Your task to perform on an android device: toggle improve location accuracy Image 0: 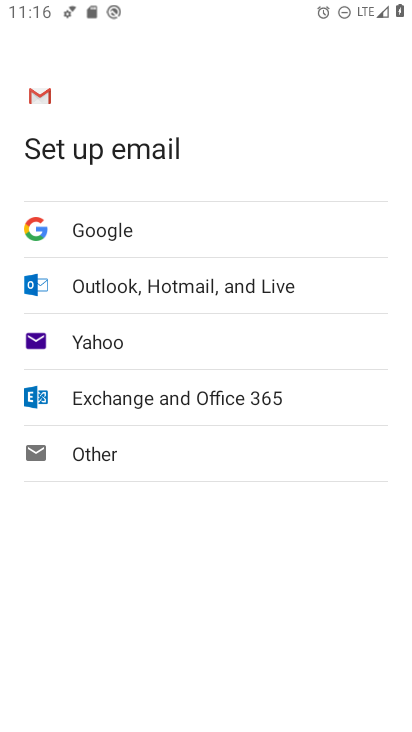
Step 0: press home button
Your task to perform on an android device: toggle improve location accuracy Image 1: 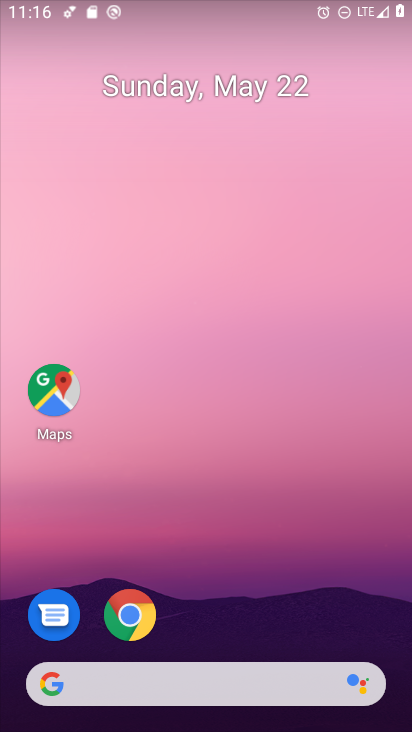
Step 1: drag from (296, 586) to (281, 55)
Your task to perform on an android device: toggle improve location accuracy Image 2: 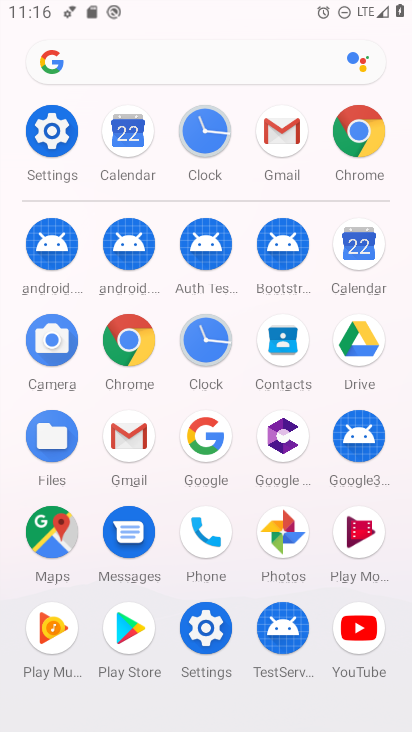
Step 2: click (33, 126)
Your task to perform on an android device: toggle improve location accuracy Image 3: 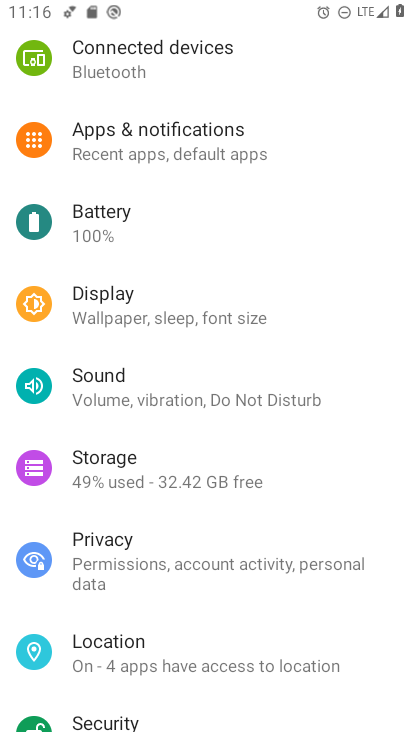
Step 3: drag from (234, 546) to (281, 57)
Your task to perform on an android device: toggle improve location accuracy Image 4: 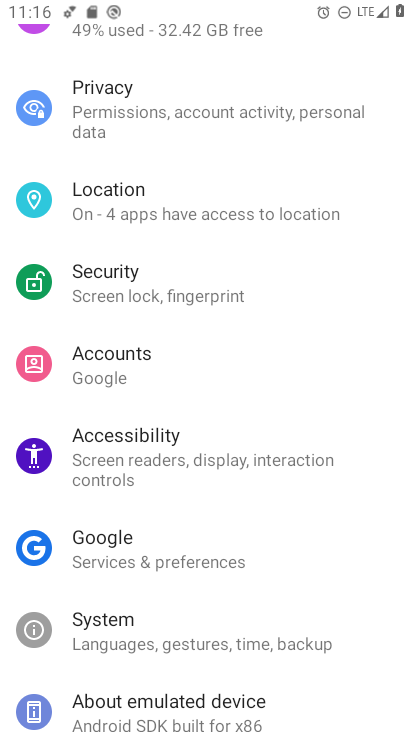
Step 4: click (197, 554)
Your task to perform on an android device: toggle improve location accuracy Image 5: 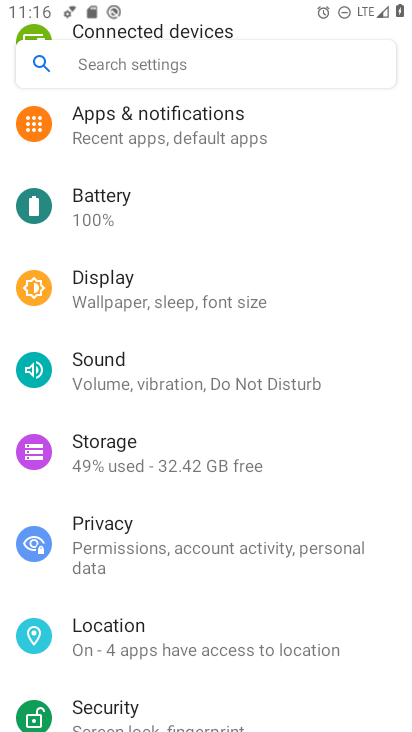
Step 5: drag from (216, 200) to (317, 195)
Your task to perform on an android device: toggle improve location accuracy Image 6: 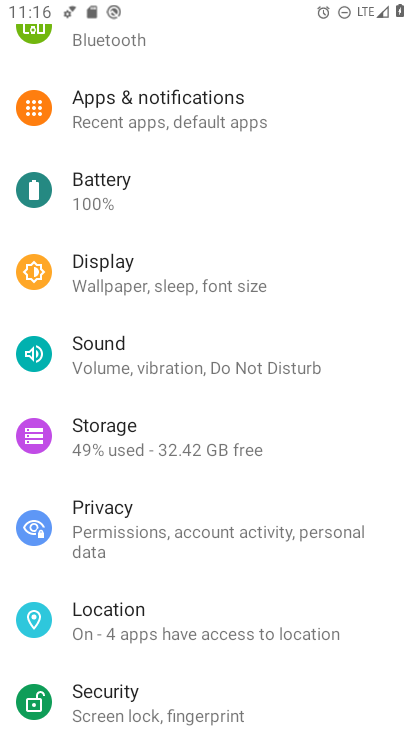
Step 6: click (117, 614)
Your task to perform on an android device: toggle improve location accuracy Image 7: 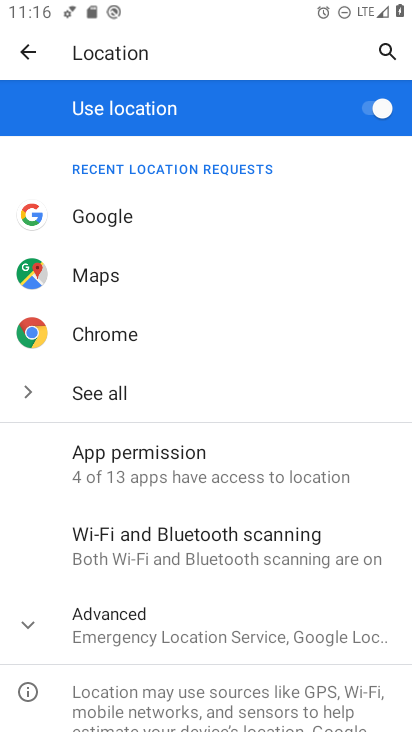
Step 7: drag from (170, 650) to (245, 155)
Your task to perform on an android device: toggle improve location accuracy Image 8: 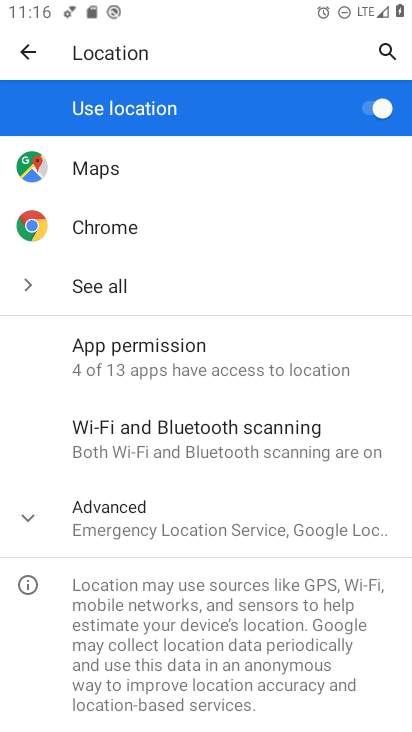
Step 8: click (132, 505)
Your task to perform on an android device: toggle improve location accuracy Image 9: 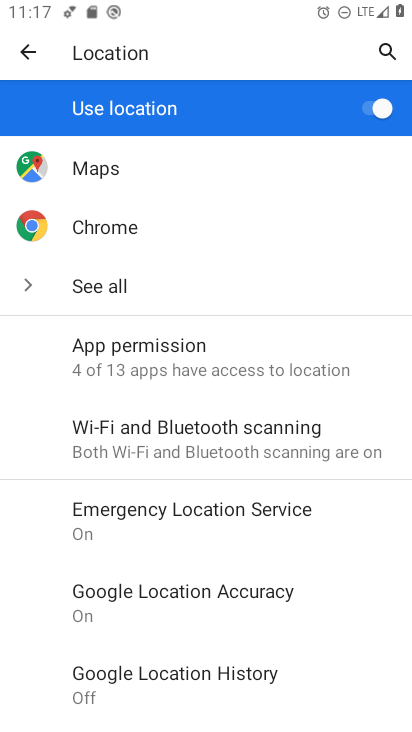
Step 9: drag from (185, 636) to (230, 376)
Your task to perform on an android device: toggle improve location accuracy Image 10: 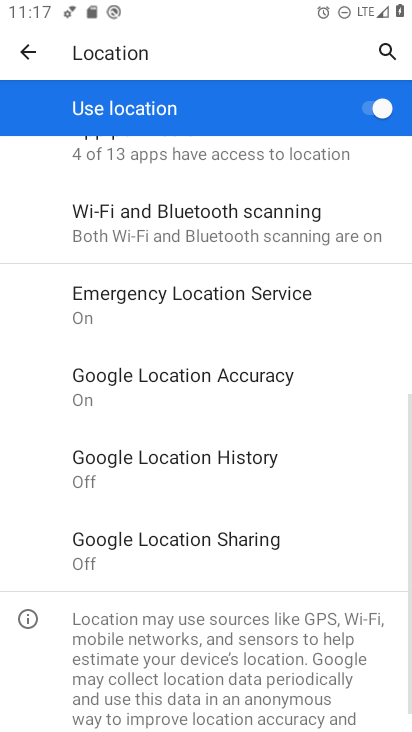
Step 10: click (219, 393)
Your task to perform on an android device: toggle improve location accuracy Image 11: 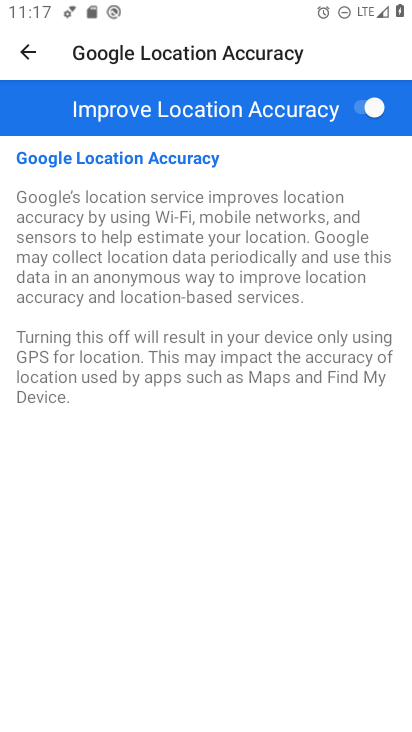
Step 11: click (385, 99)
Your task to perform on an android device: toggle improve location accuracy Image 12: 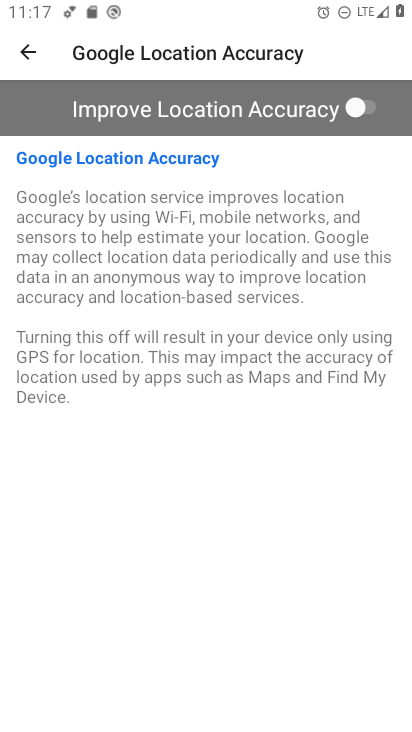
Step 12: task complete